Your task to perform on an android device: turn on priority inbox in the gmail app Image 0: 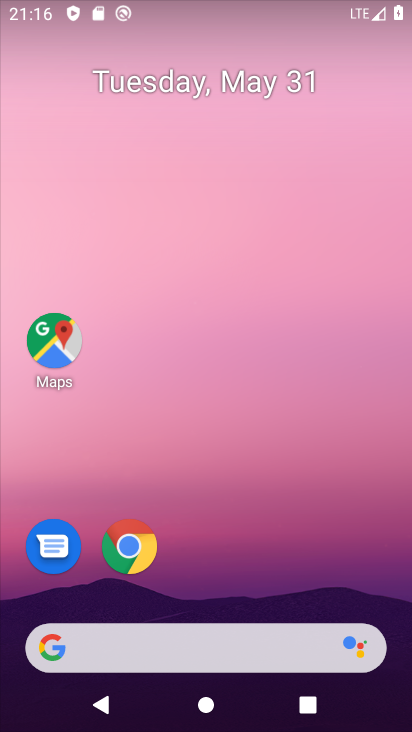
Step 0: drag from (400, 714) to (348, 168)
Your task to perform on an android device: turn on priority inbox in the gmail app Image 1: 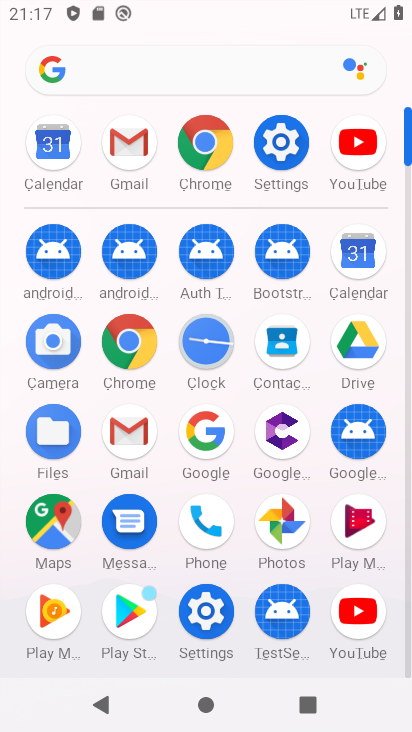
Step 1: click (120, 146)
Your task to perform on an android device: turn on priority inbox in the gmail app Image 2: 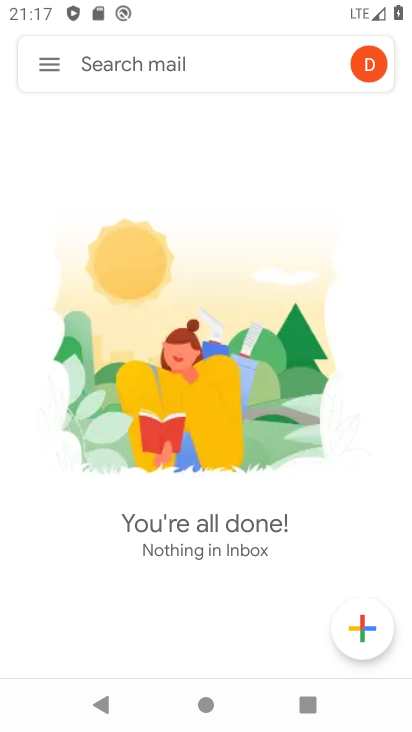
Step 2: click (47, 65)
Your task to perform on an android device: turn on priority inbox in the gmail app Image 3: 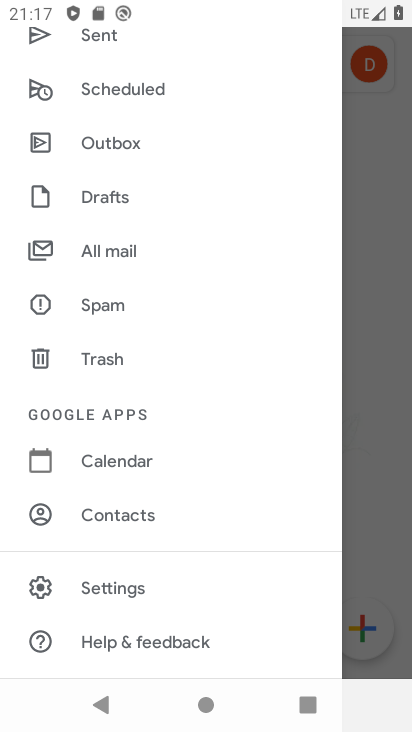
Step 3: click (132, 581)
Your task to perform on an android device: turn on priority inbox in the gmail app Image 4: 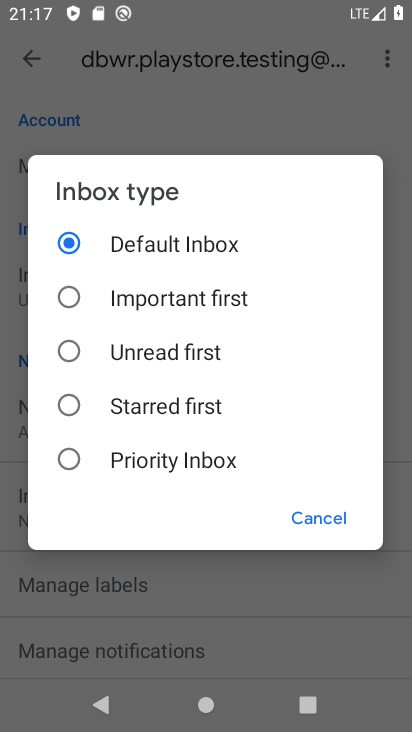
Step 4: click (70, 464)
Your task to perform on an android device: turn on priority inbox in the gmail app Image 5: 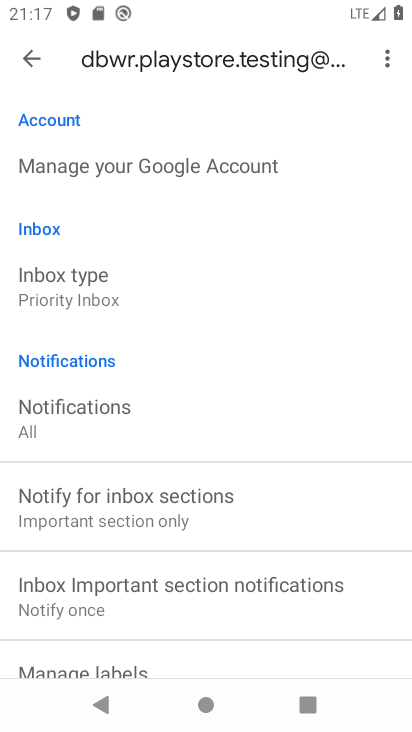
Step 5: task complete